Your task to perform on an android device: Open ESPN.com Image 0: 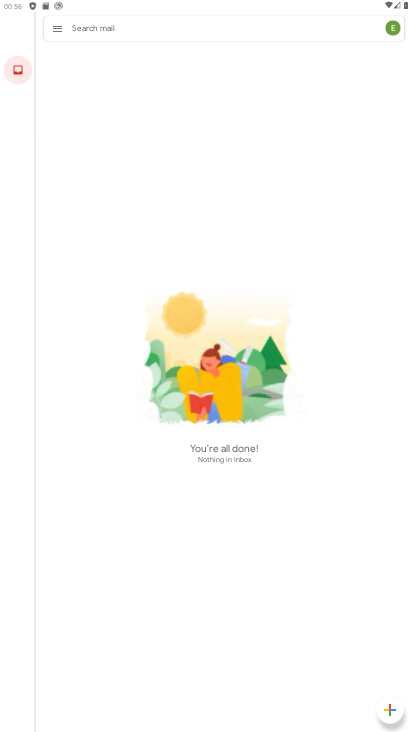
Step 0: press home button
Your task to perform on an android device: Open ESPN.com Image 1: 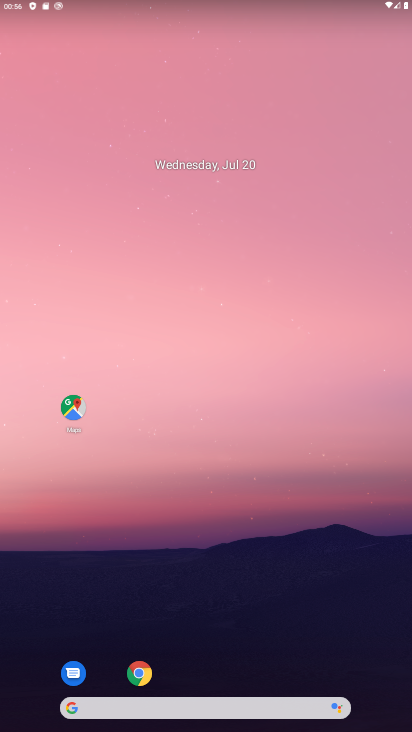
Step 1: click (201, 708)
Your task to perform on an android device: Open ESPN.com Image 2: 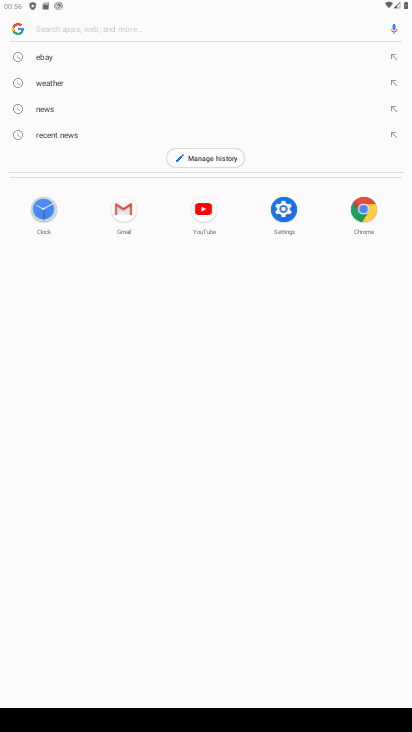
Step 2: type "espn"
Your task to perform on an android device: Open ESPN.com Image 3: 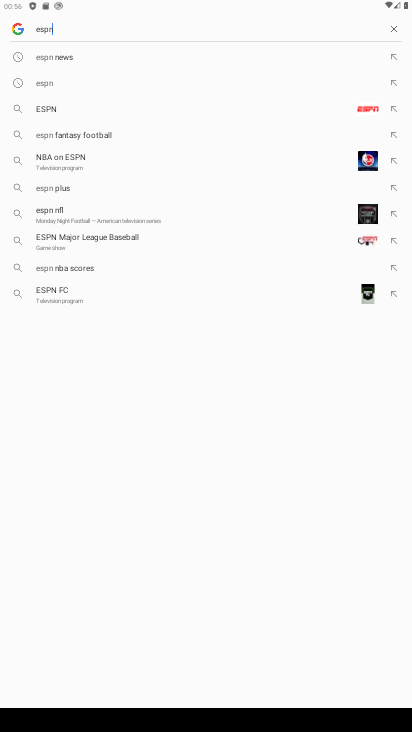
Step 3: click (64, 91)
Your task to perform on an android device: Open ESPN.com Image 4: 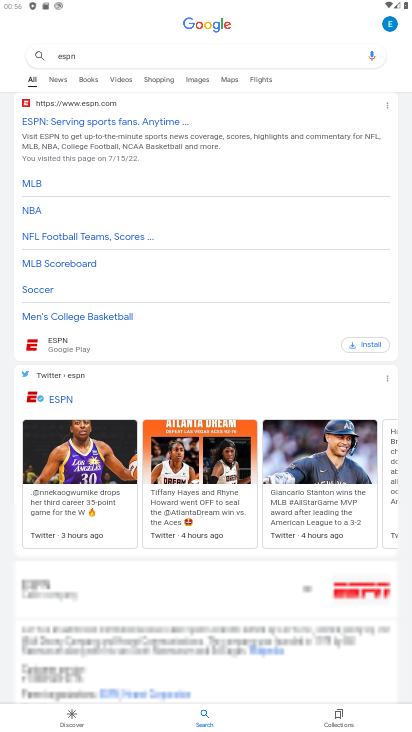
Step 4: task complete